Your task to perform on an android device: Open Google Chrome and open the bookmarks view Image 0: 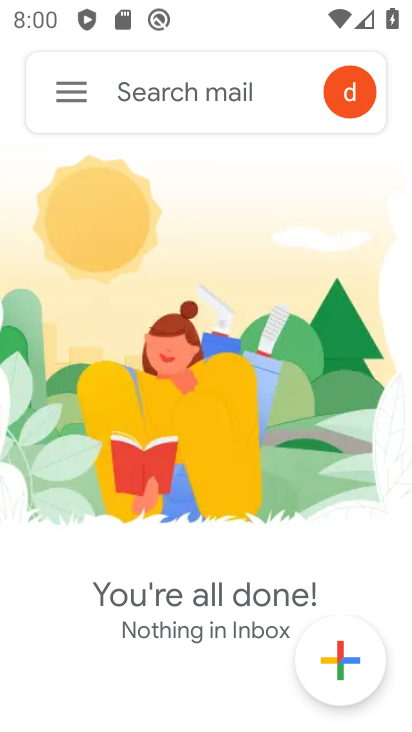
Step 0: press home button
Your task to perform on an android device: Open Google Chrome and open the bookmarks view Image 1: 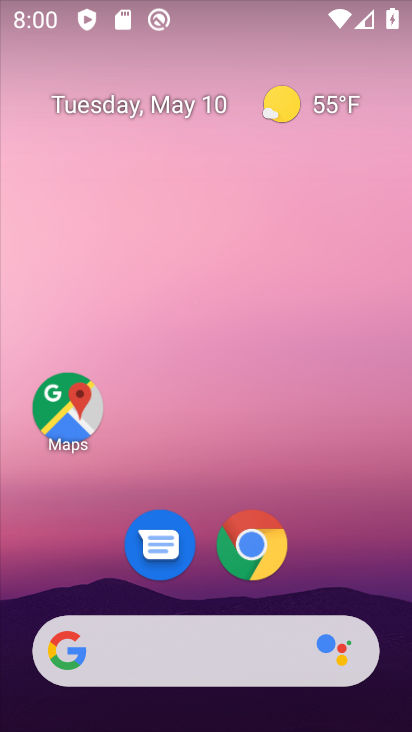
Step 1: click (235, 567)
Your task to perform on an android device: Open Google Chrome and open the bookmarks view Image 2: 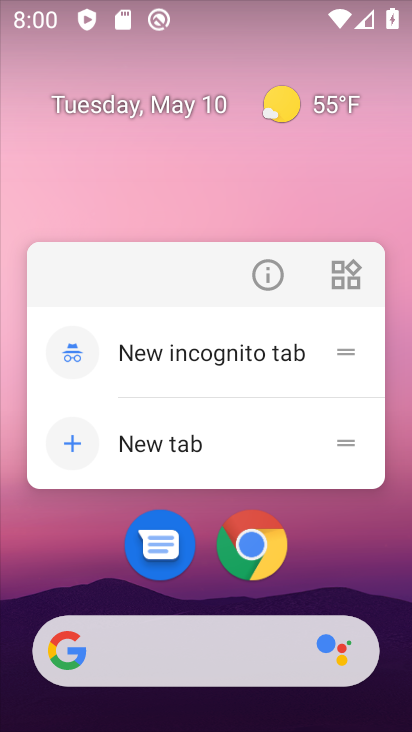
Step 2: click (235, 567)
Your task to perform on an android device: Open Google Chrome and open the bookmarks view Image 3: 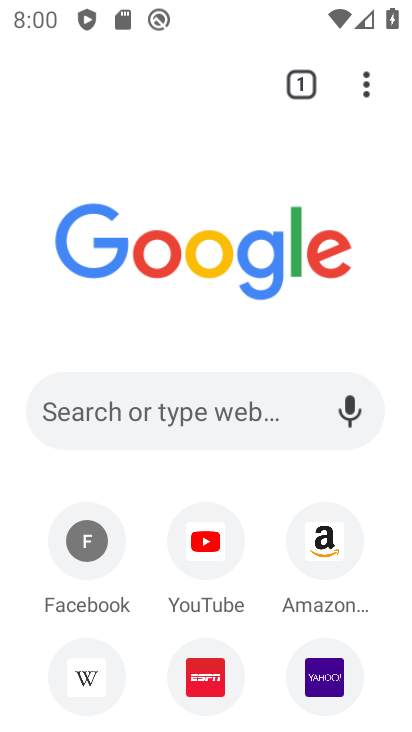
Step 3: task complete